Your task to perform on an android device: empty trash in google photos Image 0: 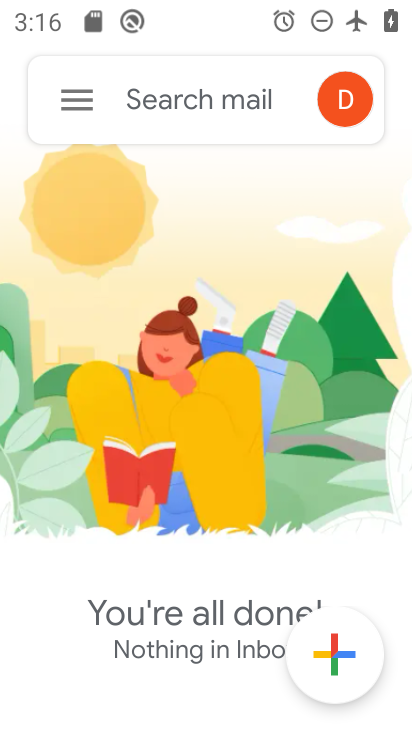
Step 0: press home button
Your task to perform on an android device: empty trash in google photos Image 1: 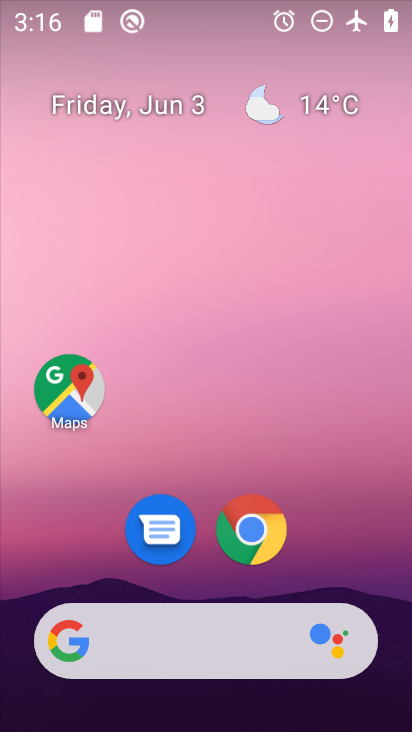
Step 1: drag from (353, 520) to (370, 154)
Your task to perform on an android device: empty trash in google photos Image 2: 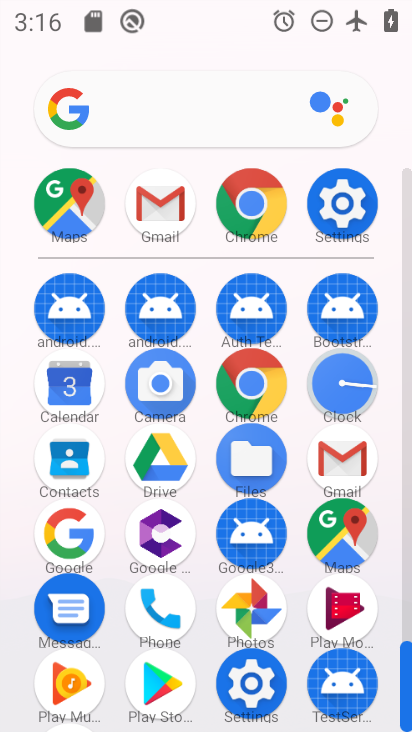
Step 2: click (250, 598)
Your task to perform on an android device: empty trash in google photos Image 3: 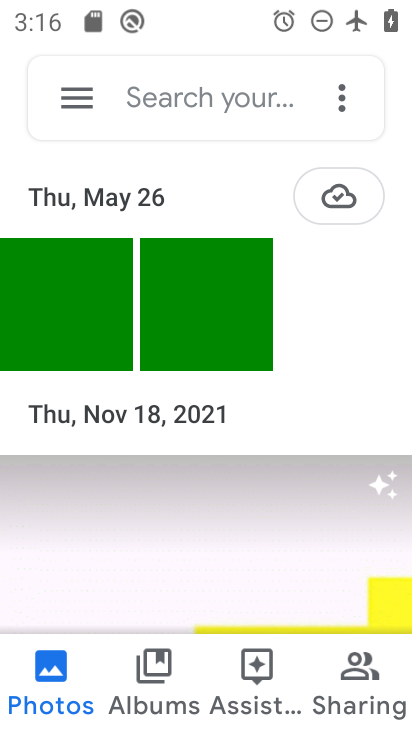
Step 3: click (79, 98)
Your task to perform on an android device: empty trash in google photos Image 4: 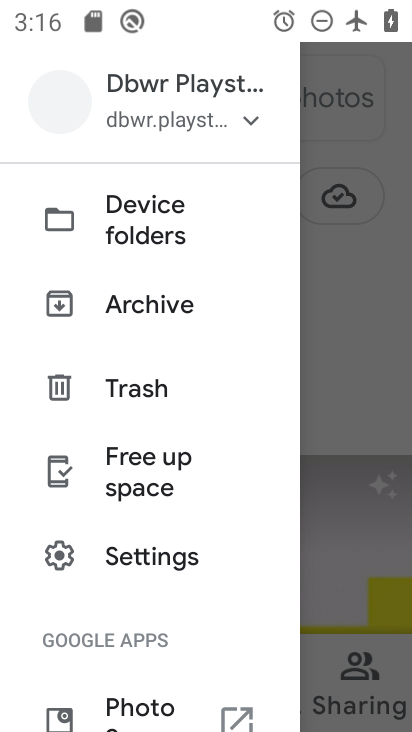
Step 4: click (131, 395)
Your task to perform on an android device: empty trash in google photos Image 5: 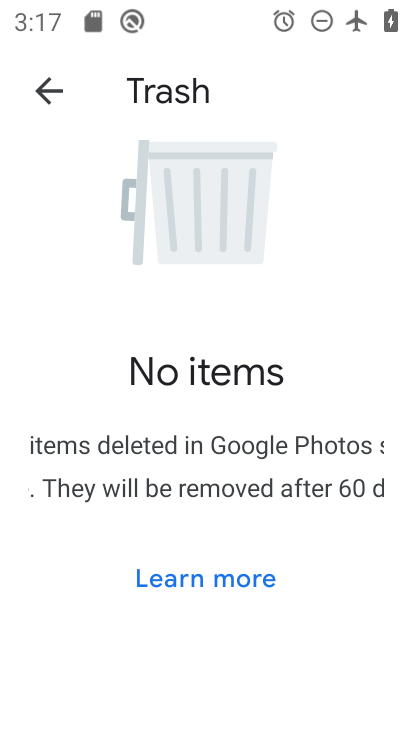
Step 5: task complete